Your task to perform on an android device: choose inbox layout in the gmail app Image 0: 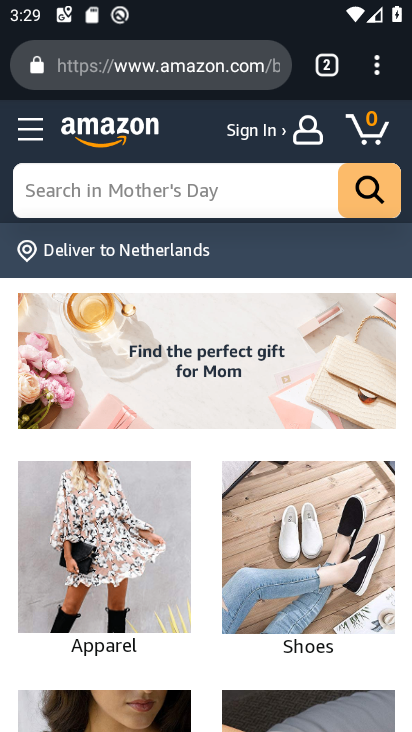
Step 0: press home button
Your task to perform on an android device: choose inbox layout in the gmail app Image 1: 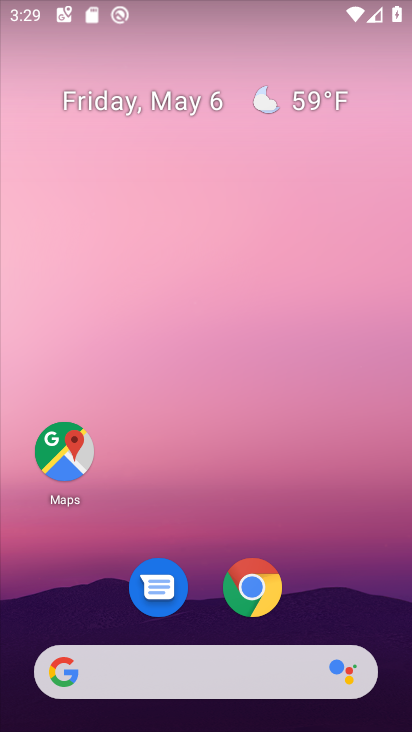
Step 1: drag from (269, 440) to (284, 44)
Your task to perform on an android device: choose inbox layout in the gmail app Image 2: 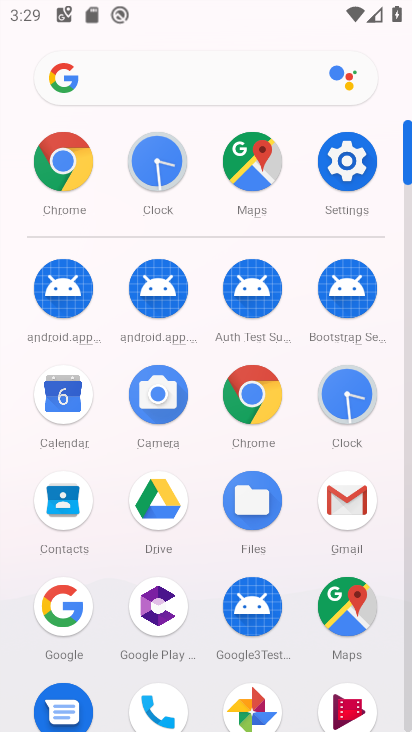
Step 2: click (344, 493)
Your task to perform on an android device: choose inbox layout in the gmail app Image 3: 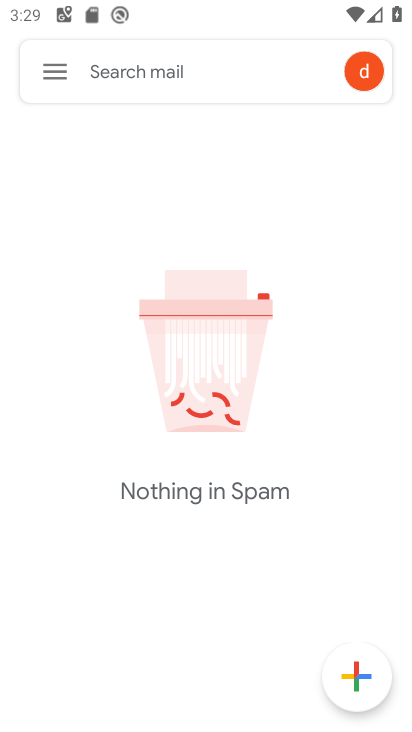
Step 3: click (60, 71)
Your task to perform on an android device: choose inbox layout in the gmail app Image 4: 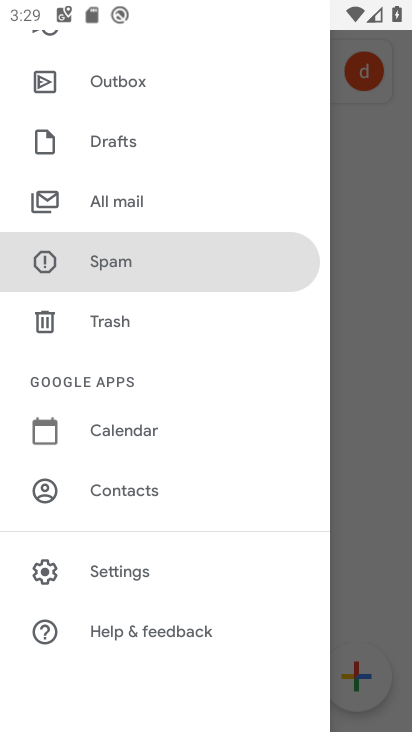
Step 4: click (146, 563)
Your task to perform on an android device: choose inbox layout in the gmail app Image 5: 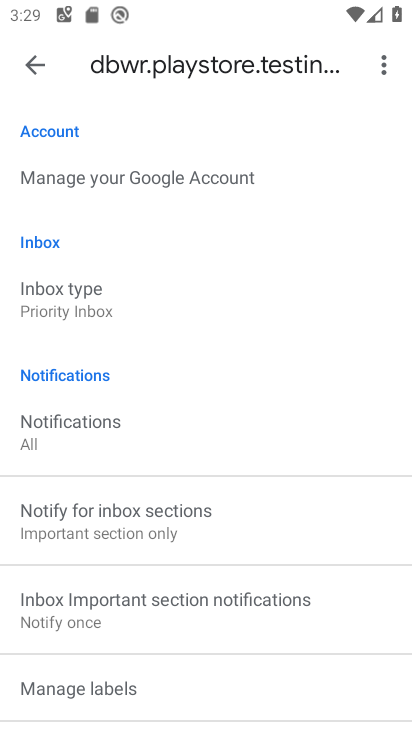
Step 5: click (76, 288)
Your task to perform on an android device: choose inbox layout in the gmail app Image 6: 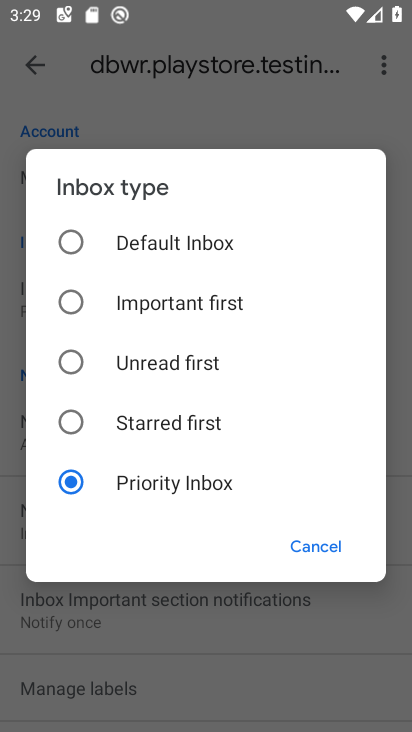
Step 6: click (316, 534)
Your task to perform on an android device: choose inbox layout in the gmail app Image 7: 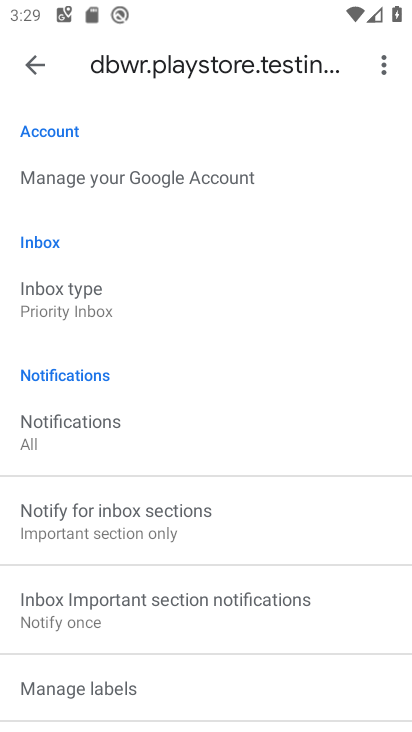
Step 7: task complete